Your task to perform on an android device: Open Amazon Image 0: 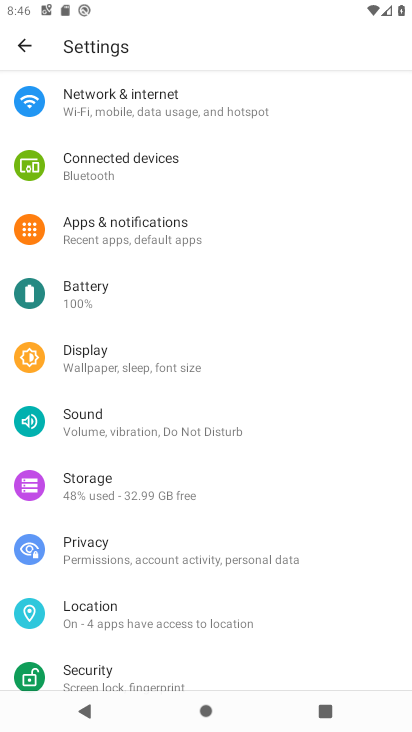
Step 0: press home button
Your task to perform on an android device: Open Amazon Image 1: 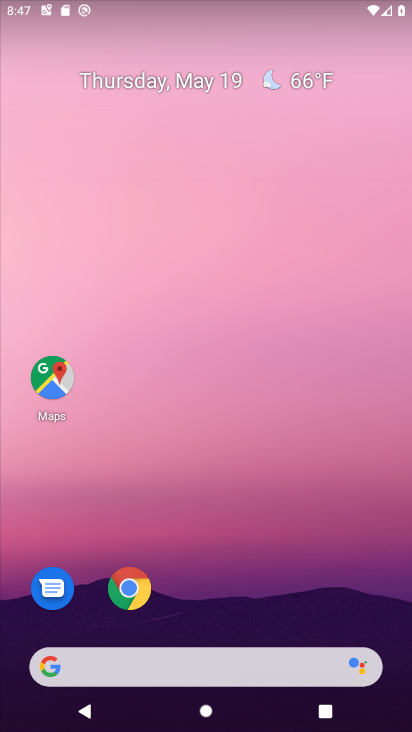
Step 1: drag from (344, 575) to (355, 188)
Your task to perform on an android device: Open Amazon Image 2: 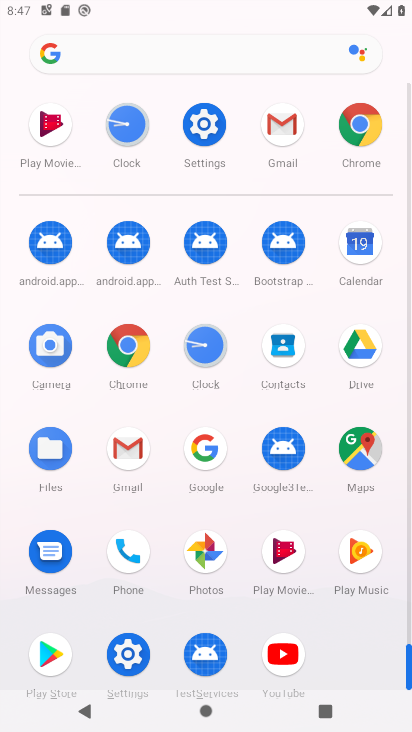
Step 2: click (128, 342)
Your task to perform on an android device: Open Amazon Image 3: 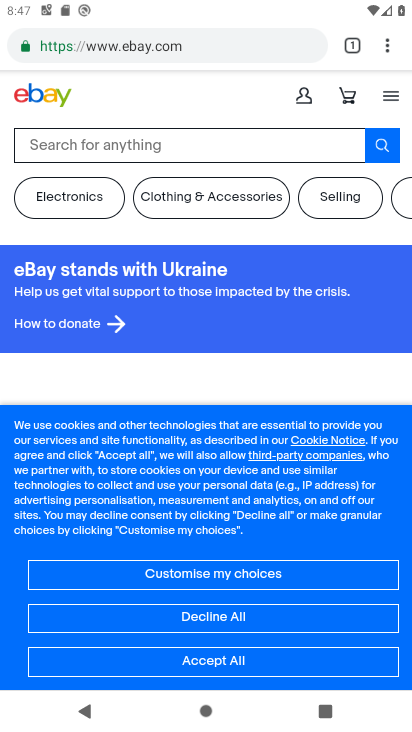
Step 3: press back button
Your task to perform on an android device: Open Amazon Image 4: 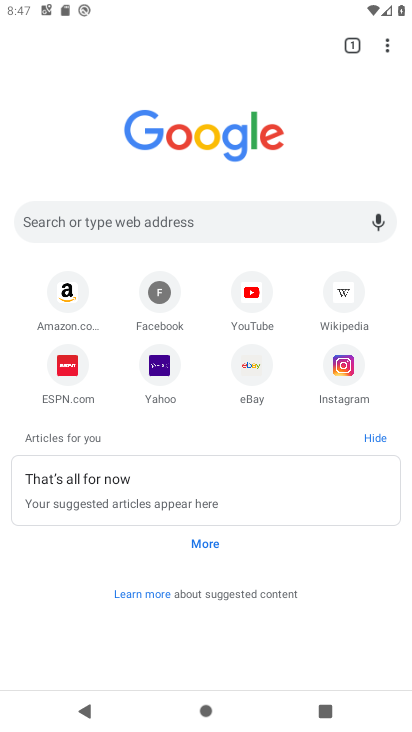
Step 4: click (69, 315)
Your task to perform on an android device: Open Amazon Image 5: 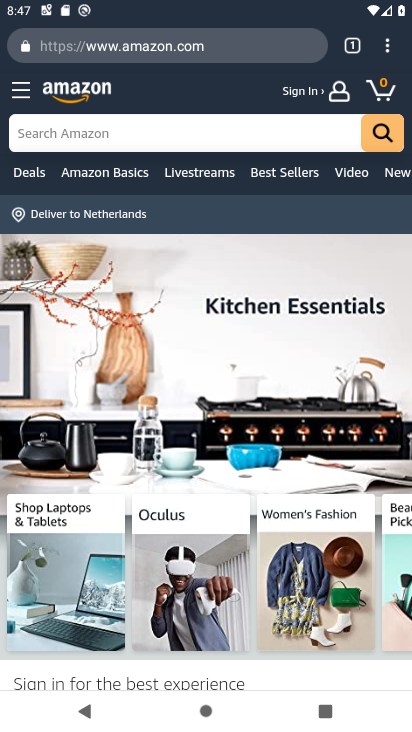
Step 5: task complete